Your task to perform on an android device: What's on my calendar today? Image 0: 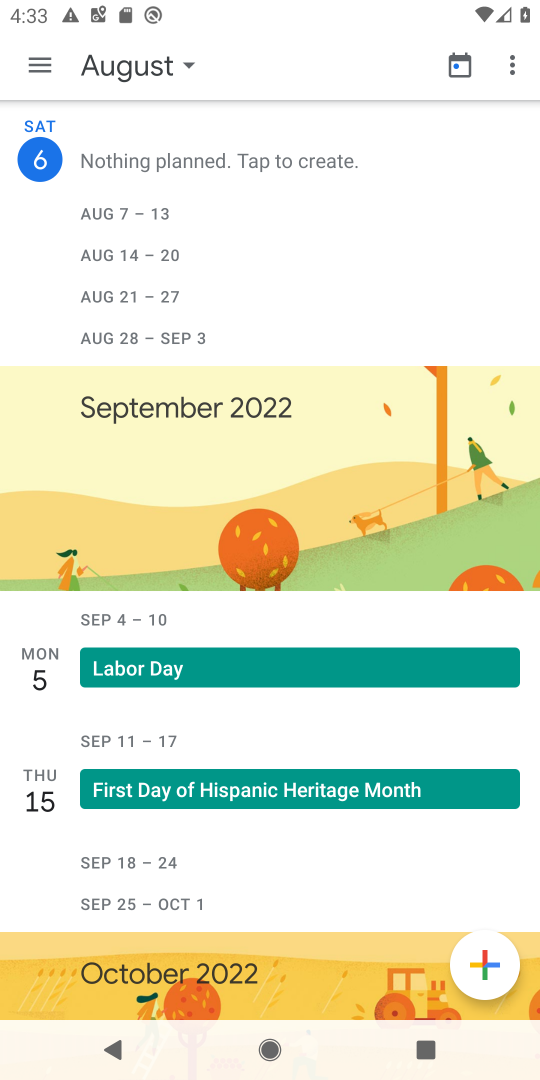
Step 0: press back button
Your task to perform on an android device: What's on my calendar today? Image 1: 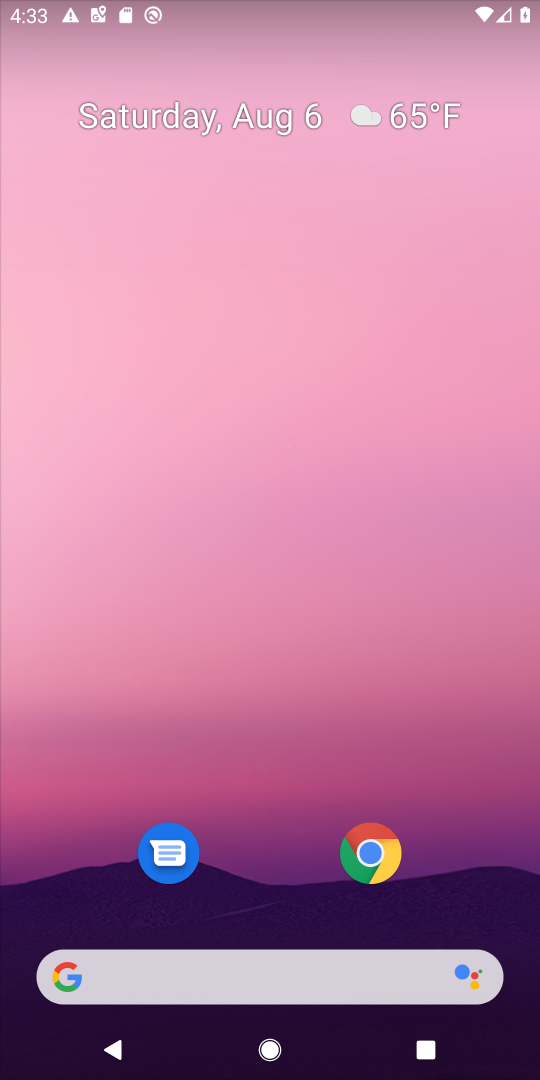
Step 1: click (268, 970)
Your task to perform on an android device: What's on my calendar today? Image 2: 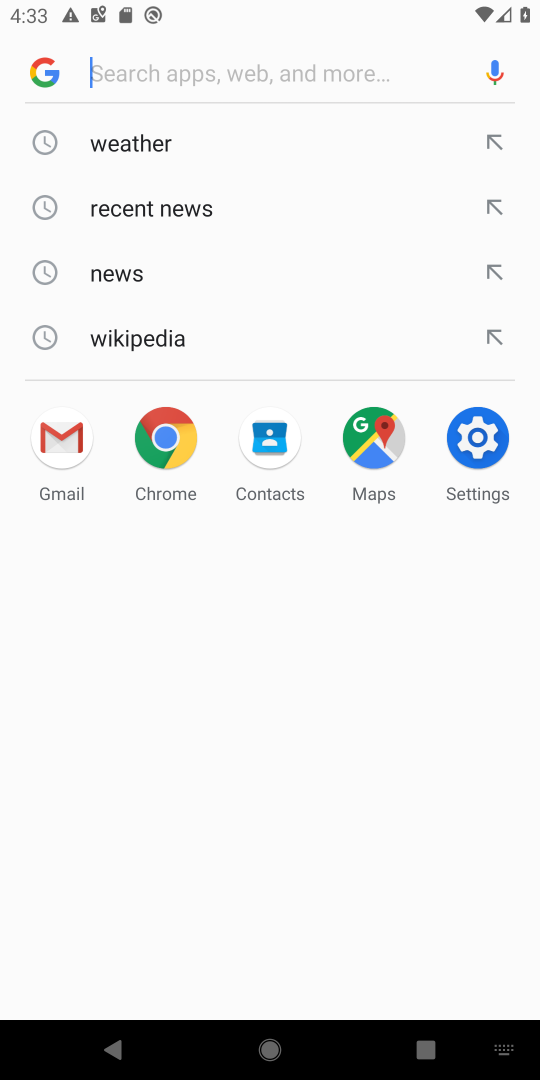
Step 2: press back button
Your task to perform on an android device: What's on my calendar today? Image 3: 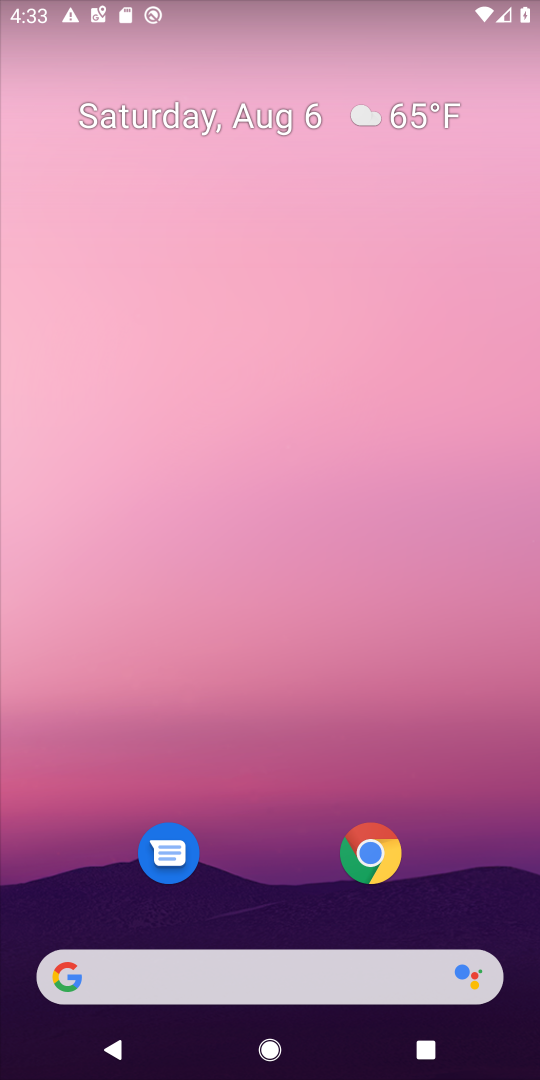
Step 3: drag from (262, 836) to (400, 99)
Your task to perform on an android device: What's on my calendar today? Image 4: 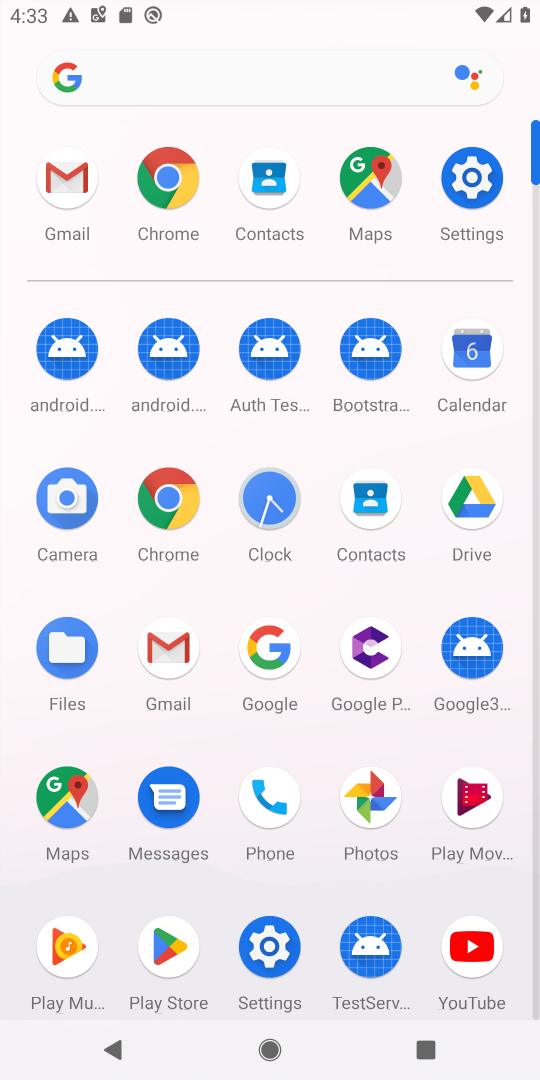
Step 4: click (478, 341)
Your task to perform on an android device: What's on my calendar today? Image 5: 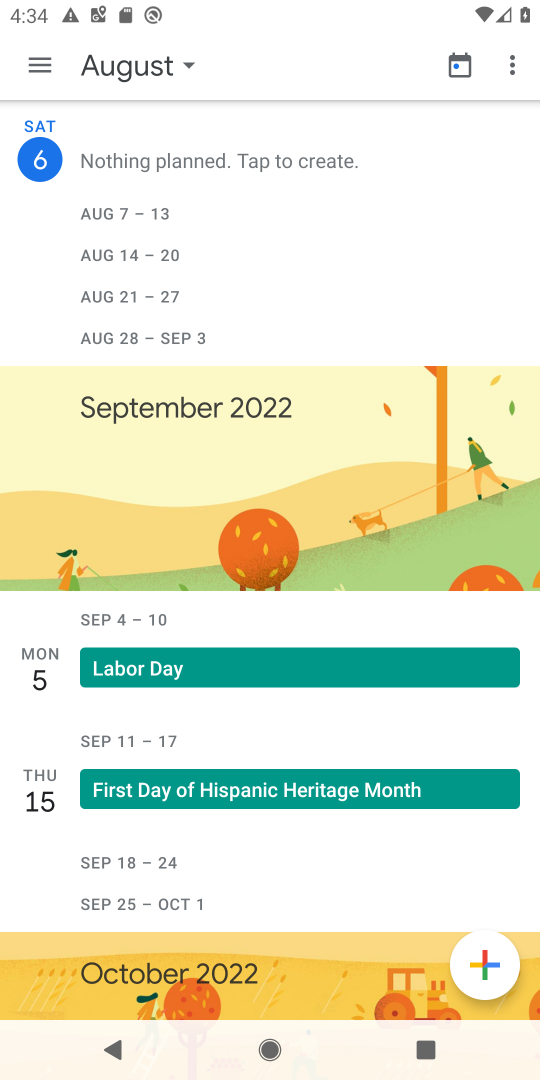
Step 5: task complete